Your task to perform on an android device: delete browsing data in the chrome app Image 0: 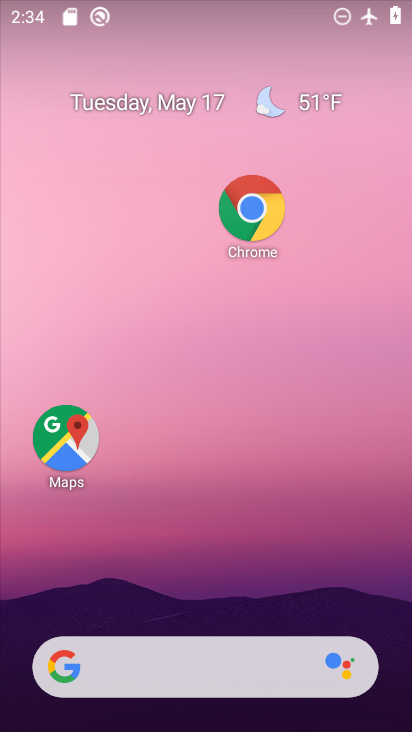
Step 0: click (249, 237)
Your task to perform on an android device: delete browsing data in the chrome app Image 1: 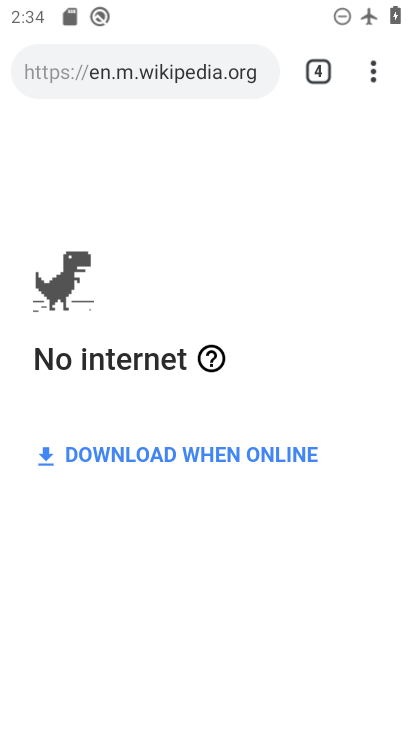
Step 1: click (372, 67)
Your task to perform on an android device: delete browsing data in the chrome app Image 2: 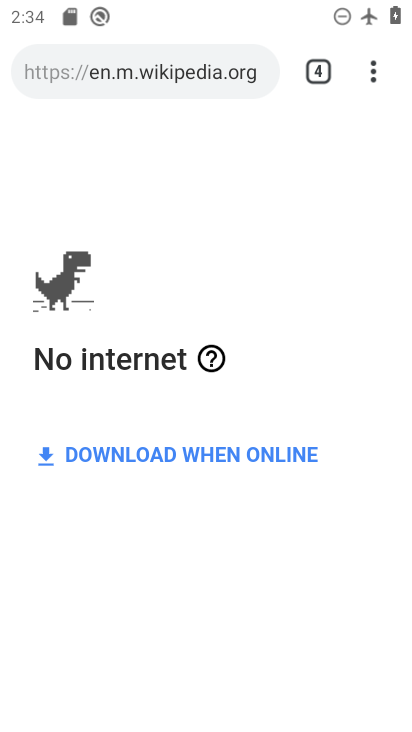
Step 2: task complete